Your task to perform on an android device: Empty the shopping cart on target.com. Image 0: 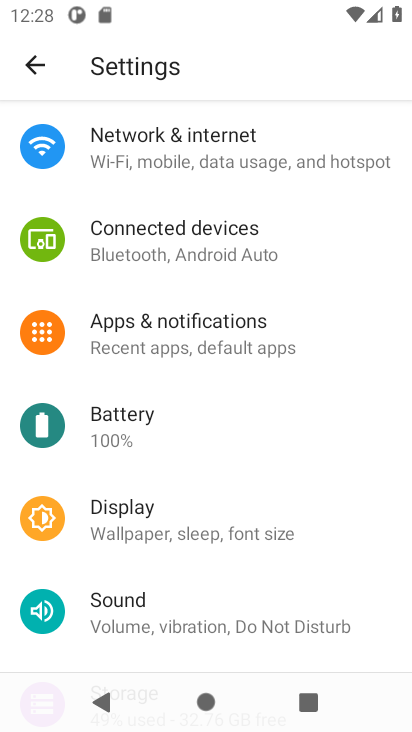
Step 0: task complete